Your task to perform on an android device: Go to Google maps Image 0: 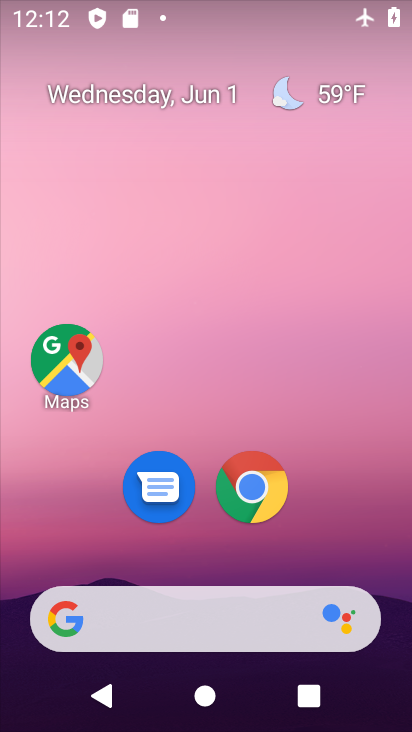
Step 0: click (60, 353)
Your task to perform on an android device: Go to Google maps Image 1: 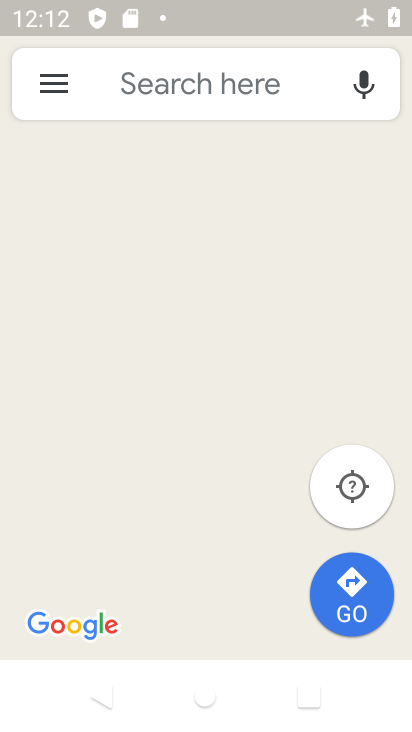
Step 1: task complete